Your task to perform on an android device: turn off notifications settings in the gmail app Image 0: 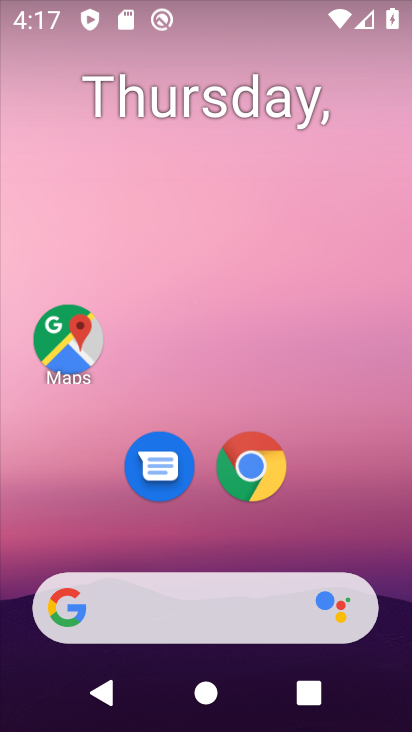
Step 0: drag from (354, 533) to (390, 219)
Your task to perform on an android device: turn off notifications settings in the gmail app Image 1: 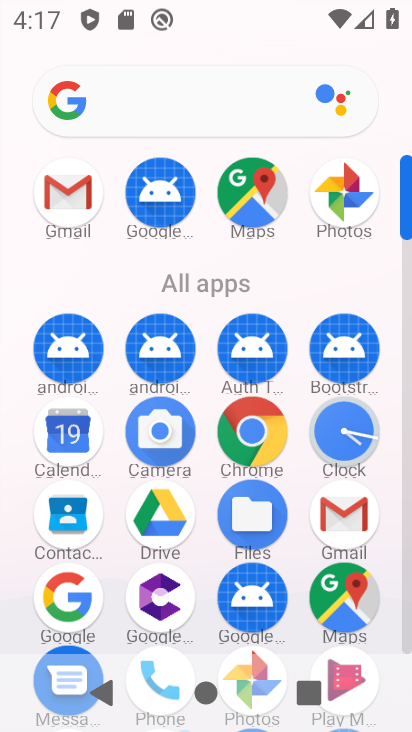
Step 1: click (68, 215)
Your task to perform on an android device: turn off notifications settings in the gmail app Image 2: 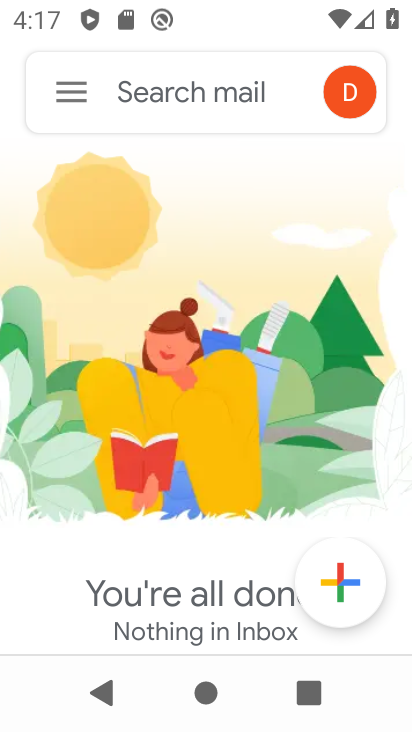
Step 2: click (63, 99)
Your task to perform on an android device: turn off notifications settings in the gmail app Image 3: 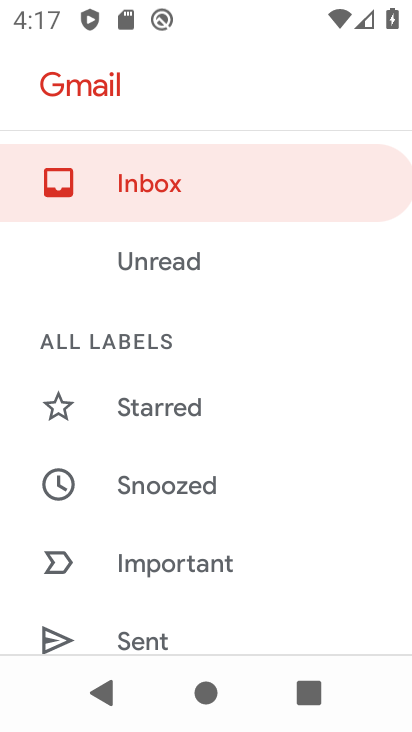
Step 3: drag from (200, 616) to (203, 127)
Your task to perform on an android device: turn off notifications settings in the gmail app Image 4: 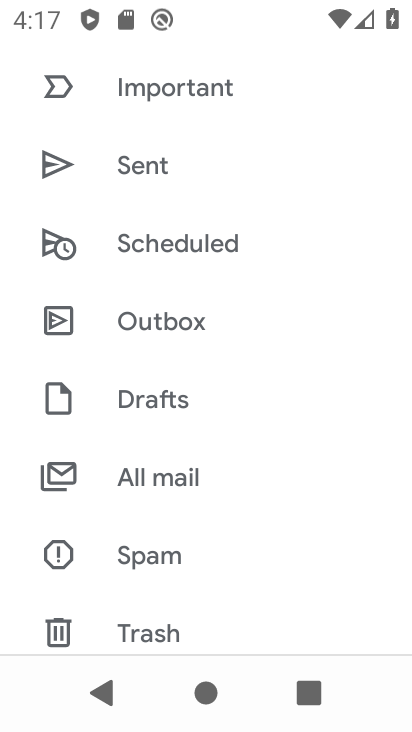
Step 4: drag from (166, 595) to (188, 127)
Your task to perform on an android device: turn off notifications settings in the gmail app Image 5: 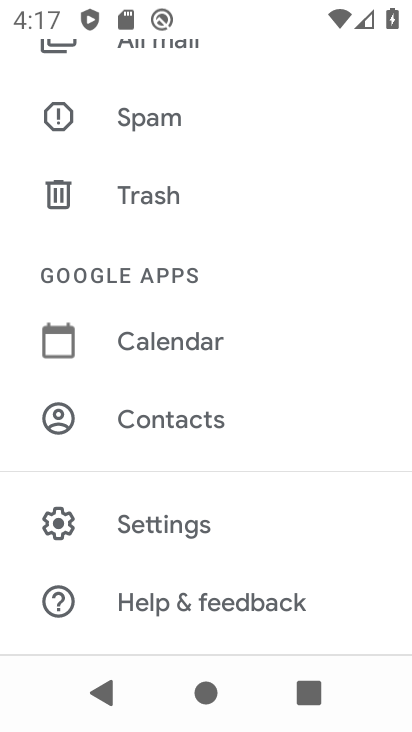
Step 5: click (168, 509)
Your task to perform on an android device: turn off notifications settings in the gmail app Image 6: 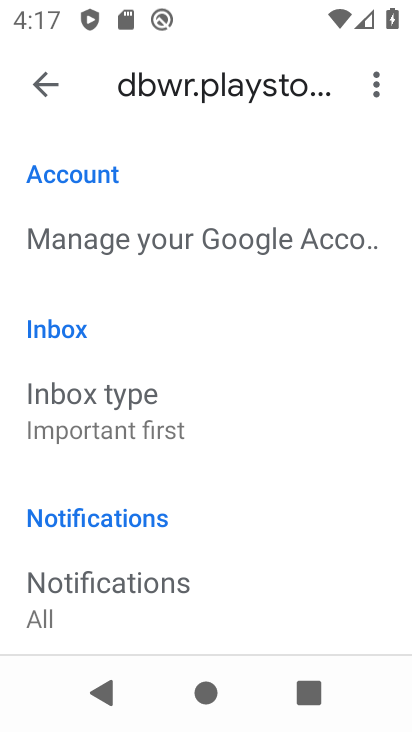
Step 6: drag from (227, 486) to (236, 225)
Your task to perform on an android device: turn off notifications settings in the gmail app Image 7: 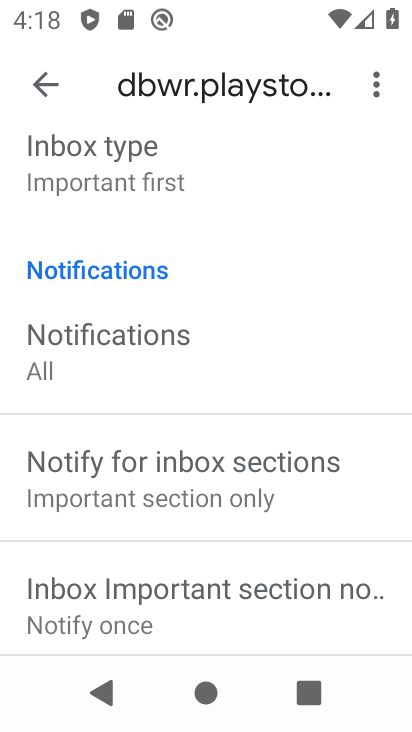
Step 7: click (118, 361)
Your task to perform on an android device: turn off notifications settings in the gmail app Image 8: 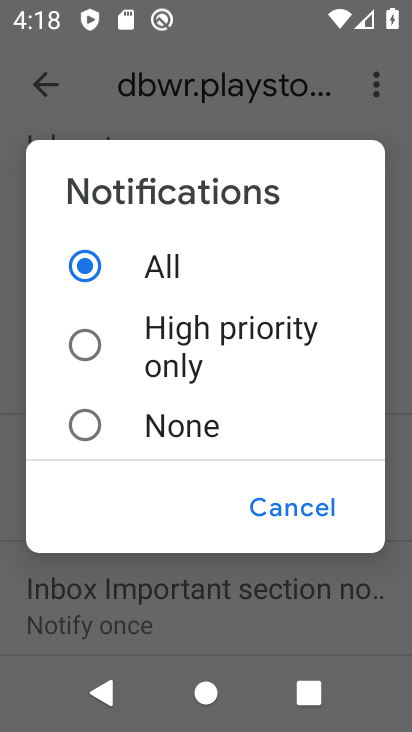
Step 8: drag from (168, 418) to (184, 158)
Your task to perform on an android device: turn off notifications settings in the gmail app Image 9: 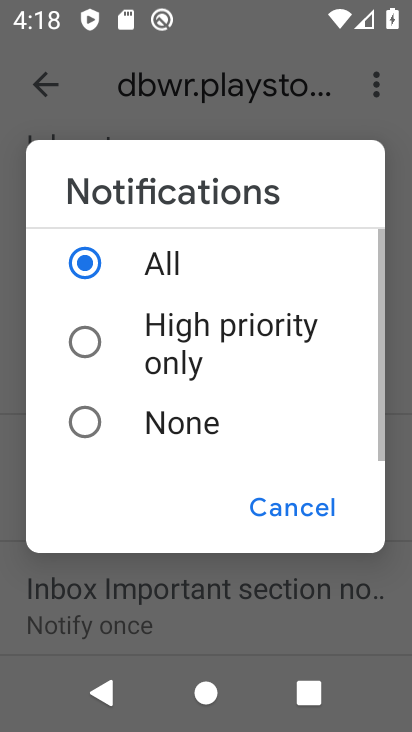
Step 9: click (82, 418)
Your task to perform on an android device: turn off notifications settings in the gmail app Image 10: 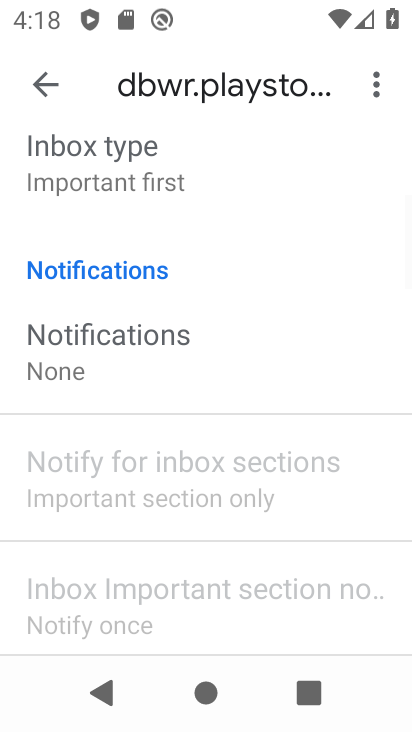
Step 10: task complete